Your task to perform on an android device: Show the shopping cart on ebay.com. Add "jbl charge 4" to the cart on ebay.com, then select checkout. Image 0: 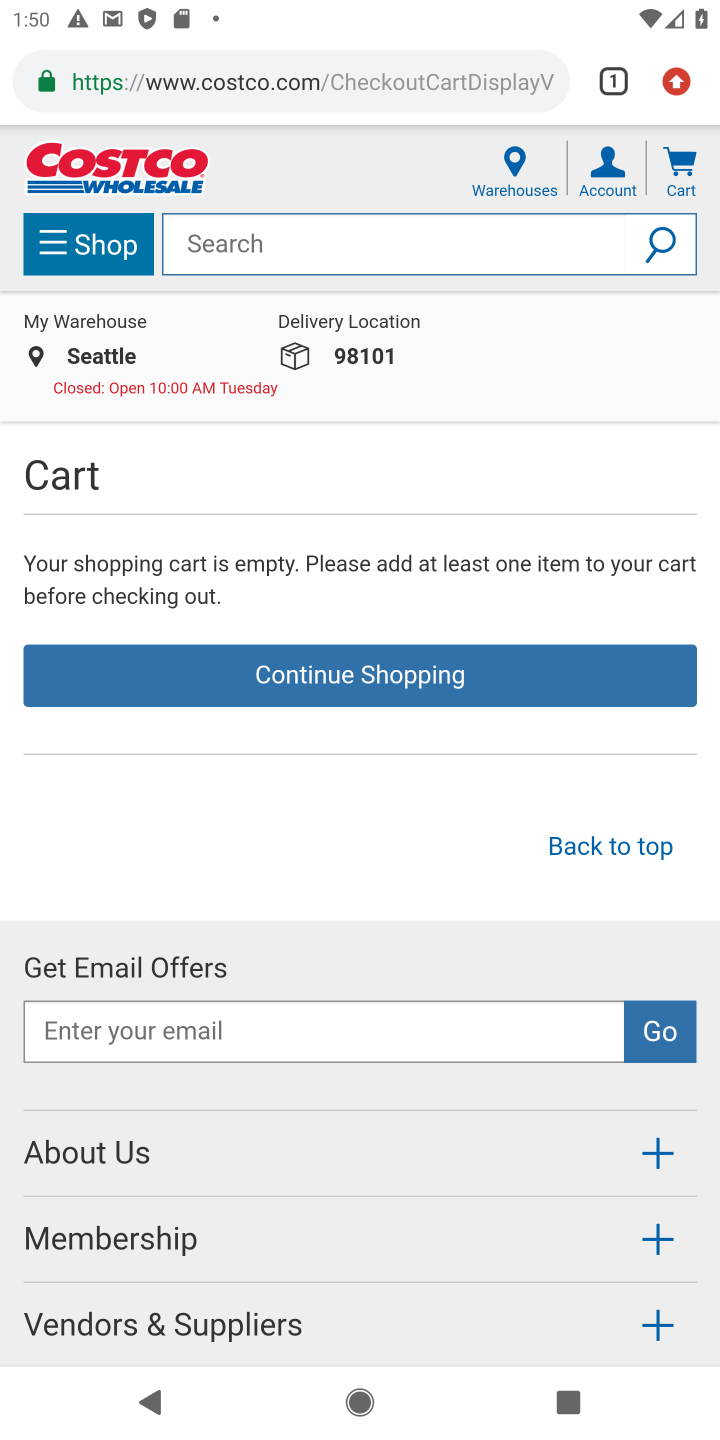
Step 0: click (217, 69)
Your task to perform on an android device: Show the shopping cart on ebay.com. Add "jbl charge 4" to the cart on ebay.com, then select checkout. Image 1: 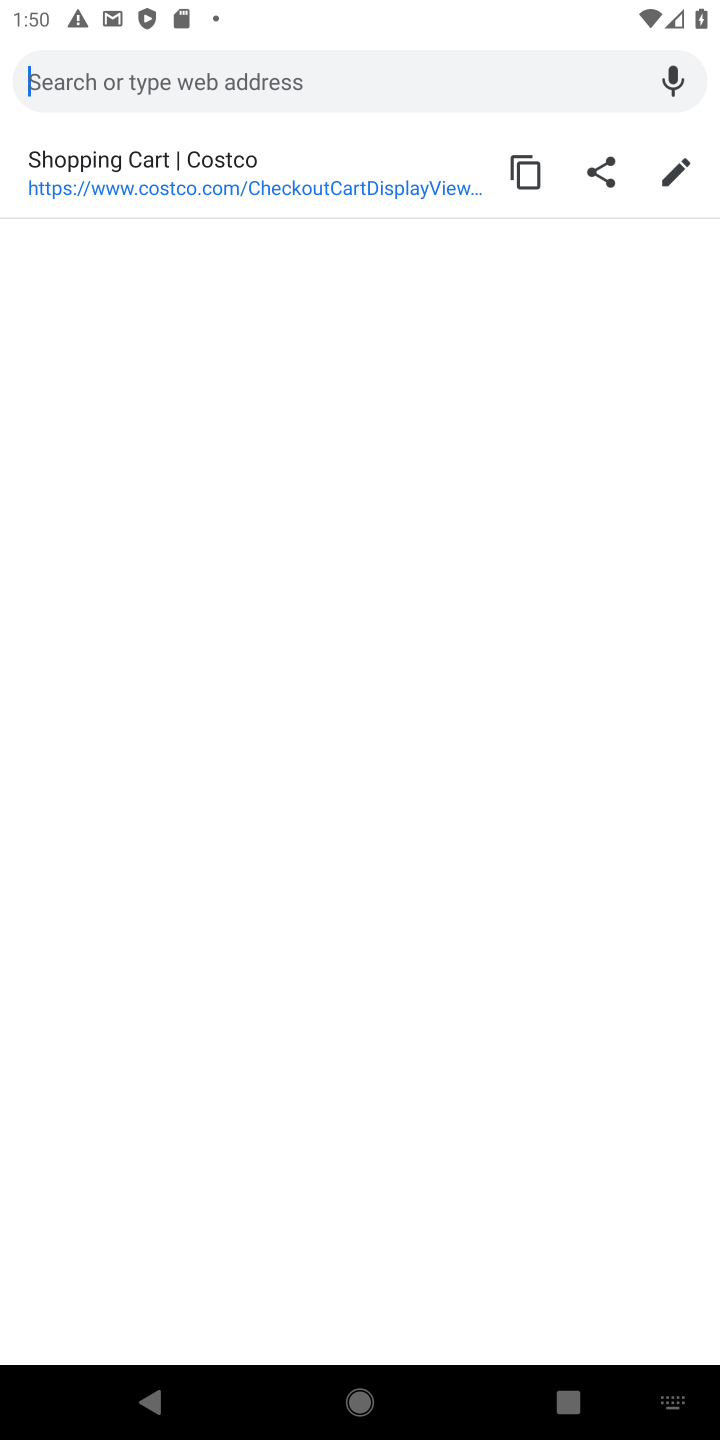
Step 1: type "ebay.com"
Your task to perform on an android device: Show the shopping cart on ebay.com. Add "jbl charge 4" to the cart on ebay.com, then select checkout. Image 2: 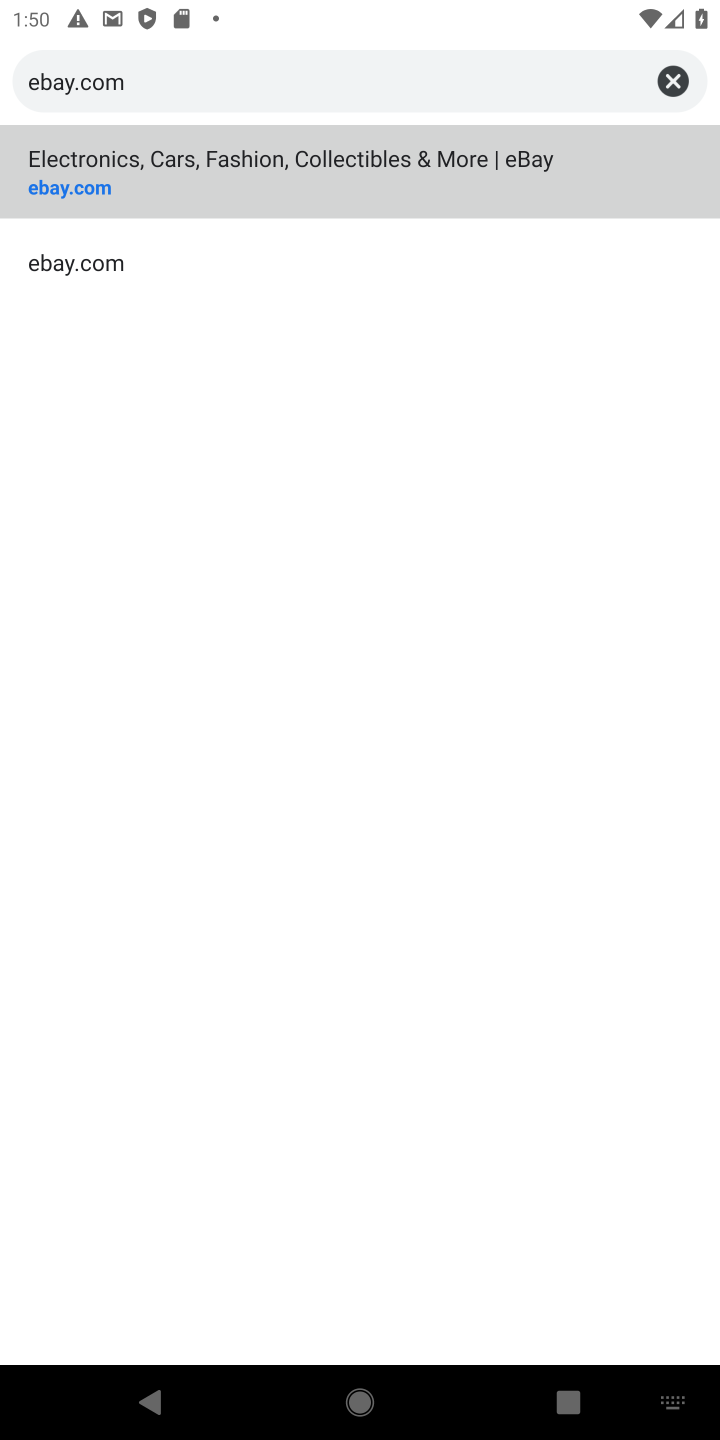
Step 2: click (54, 188)
Your task to perform on an android device: Show the shopping cart on ebay.com. Add "jbl charge 4" to the cart on ebay.com, then select checkout. Image 3: 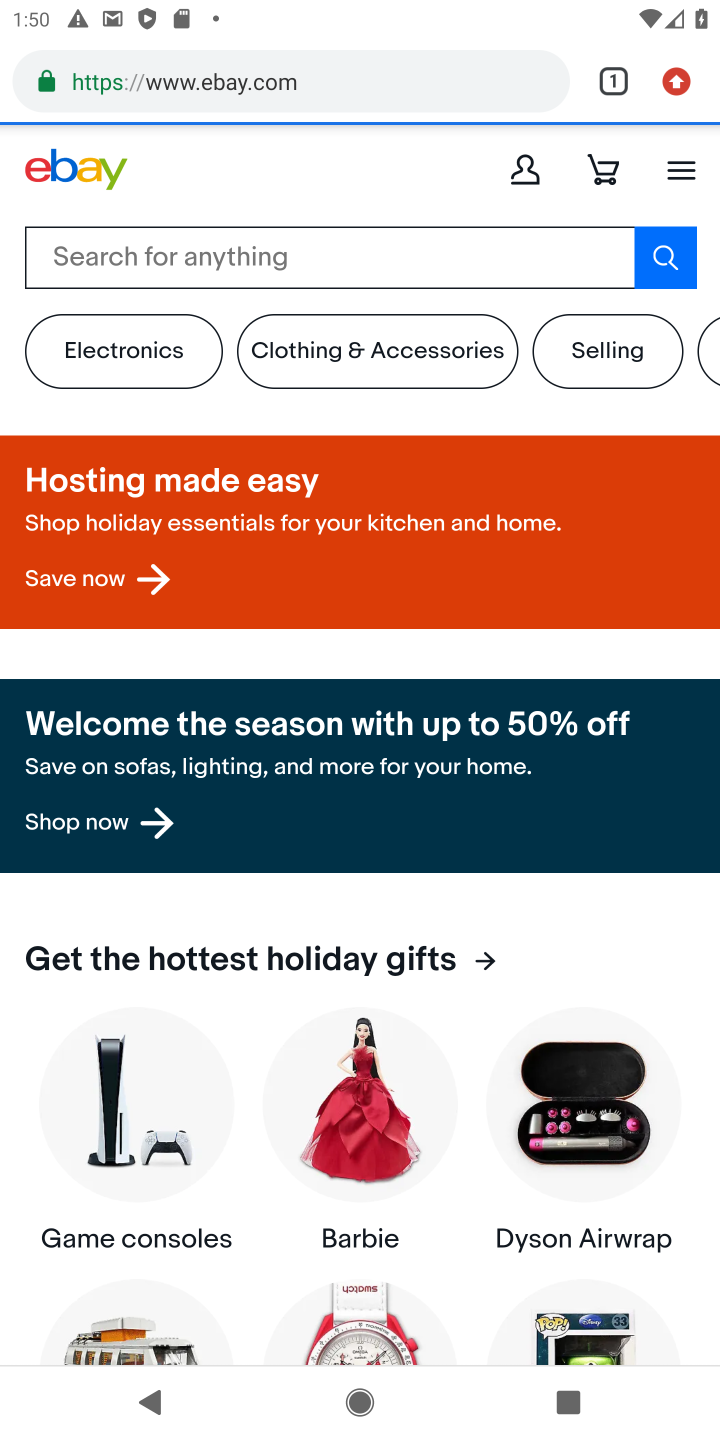
Step 3: click (214, 242)
Your task to perform on an android device: Show the shopping cart on ebay.com. Add "jbl charge 4" to the cart on ebay.com, then select checkout. Image 4: 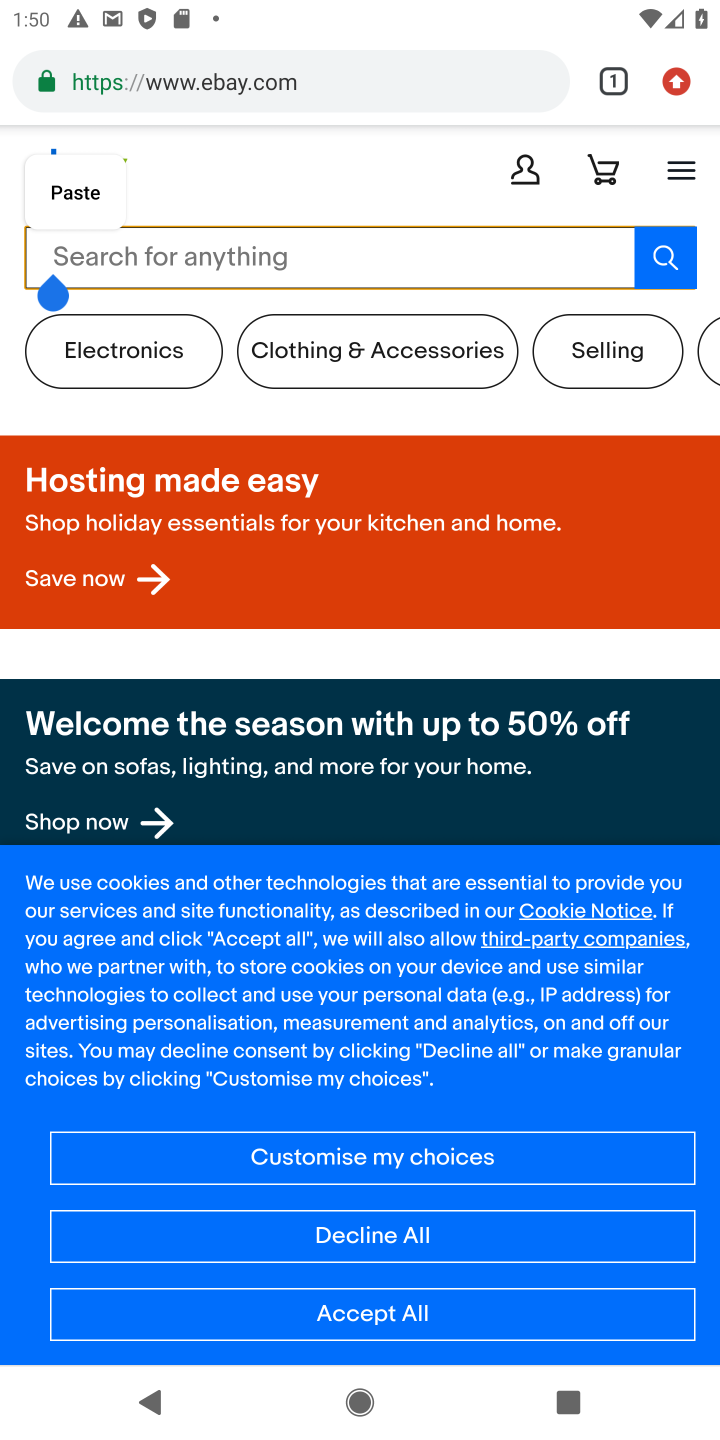
Step 4: type "jbl charge 4"
Your task to perform on an android device: Show the shopping cart on ebay.com. Add "jbl charge 4" to the cart on ebay.com, then select checkout. Image 5: 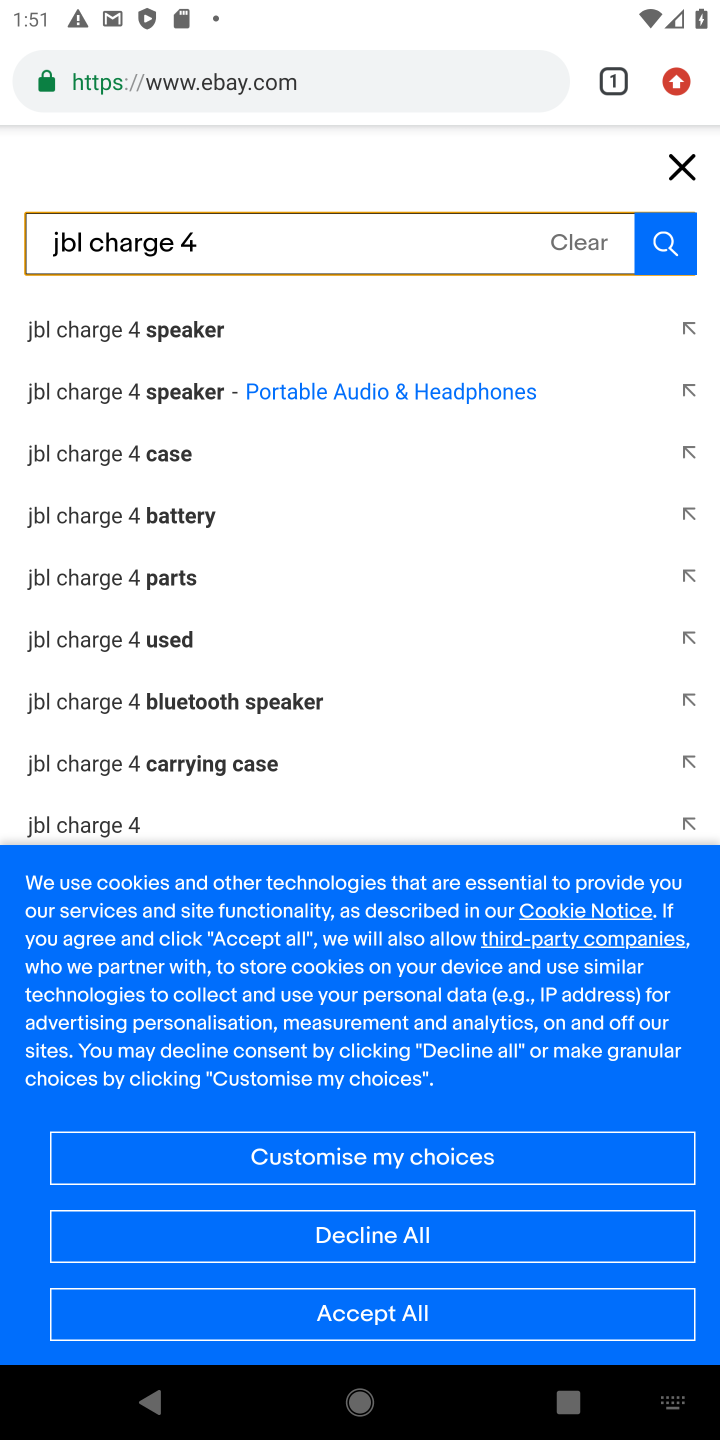
Step 5: click (103, 819)
Your task to perform on an android device: Show the shopping cart on ebay.com. Add "jbl charge 4" to the cart on ebay.com, then select checkout. Image 6: 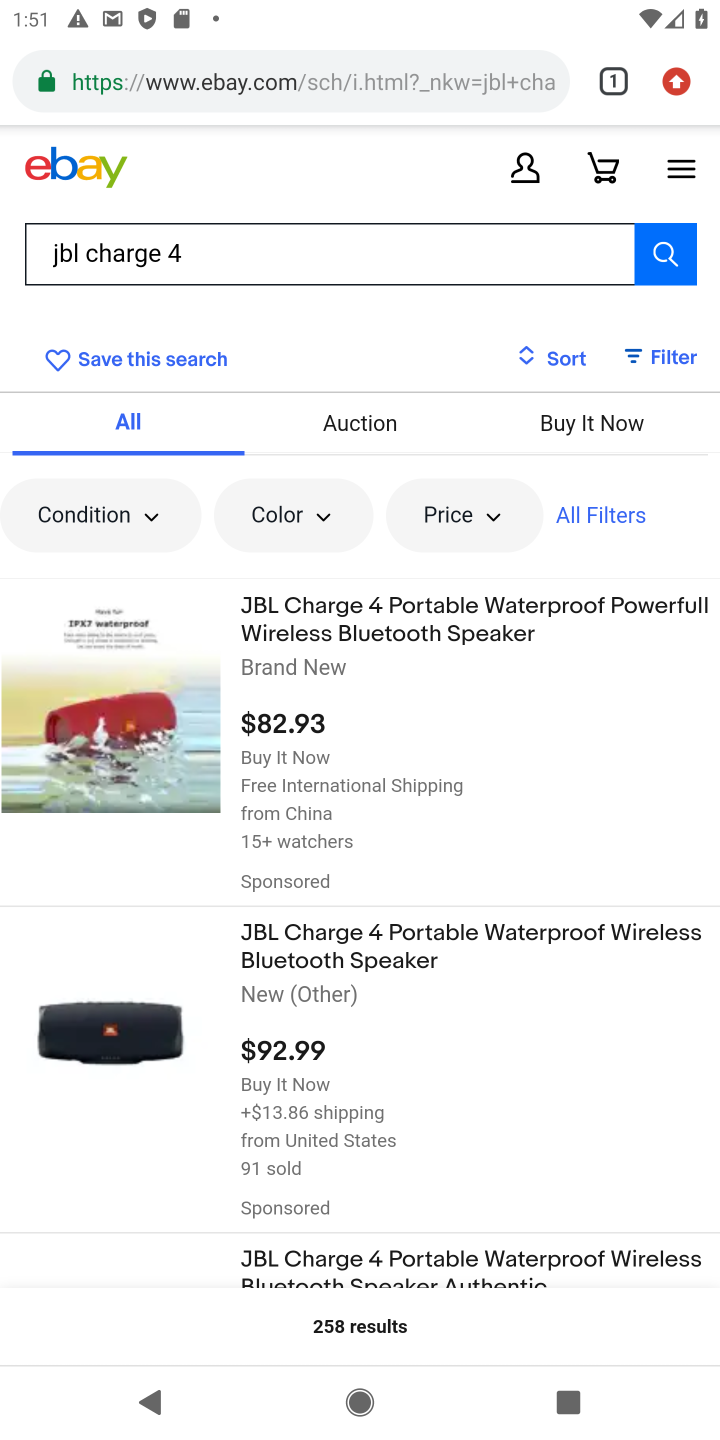
Step 6: click (159, 689)
Your task to perform on an android device: Show the shopping cart on ebay.com. Add "jbl charge 4" to the cart on ebay.com, then select checkout. Image 7: 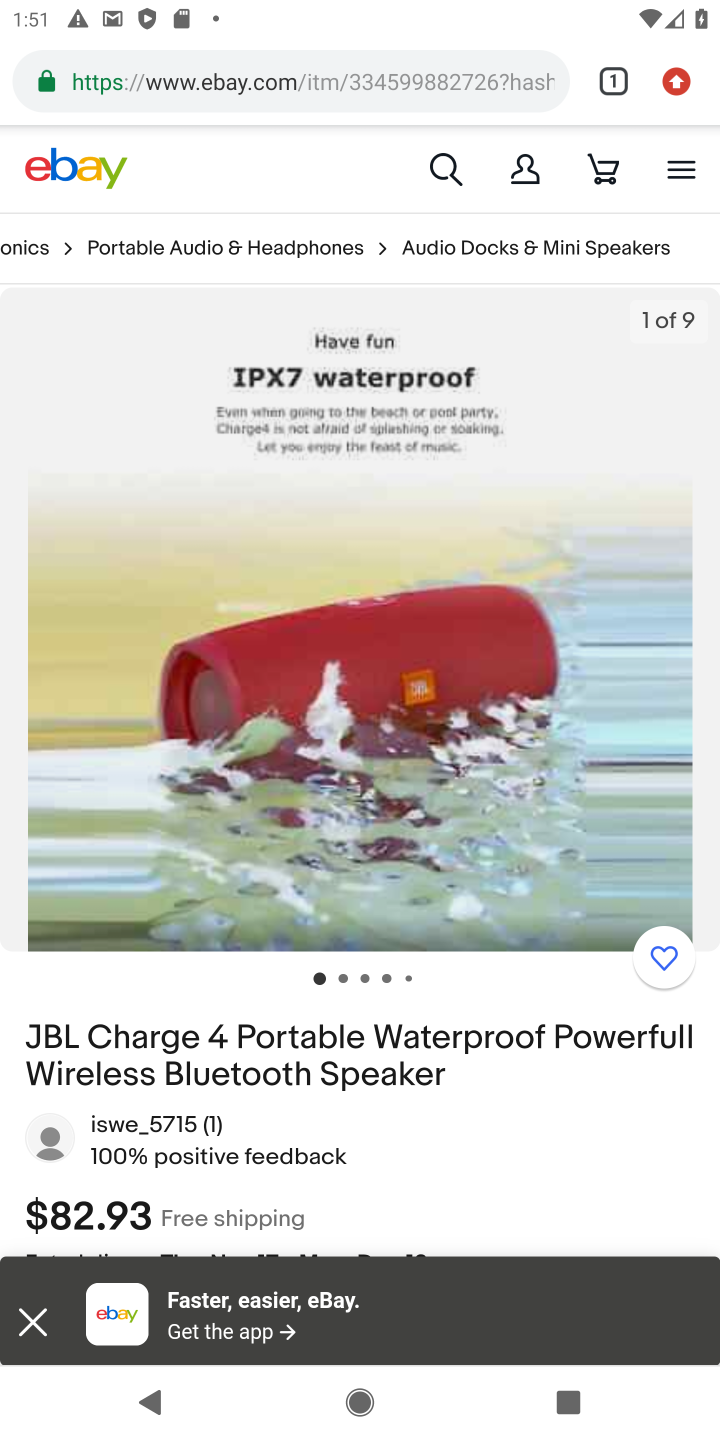
Step 7: drag from (407, 943) to (367, 483)
Your task to perform on an android device: Show the shopping cart on ebay.com. Add "jbl charge 4" to the cart on ebay.com, then select checkout. Image 8: 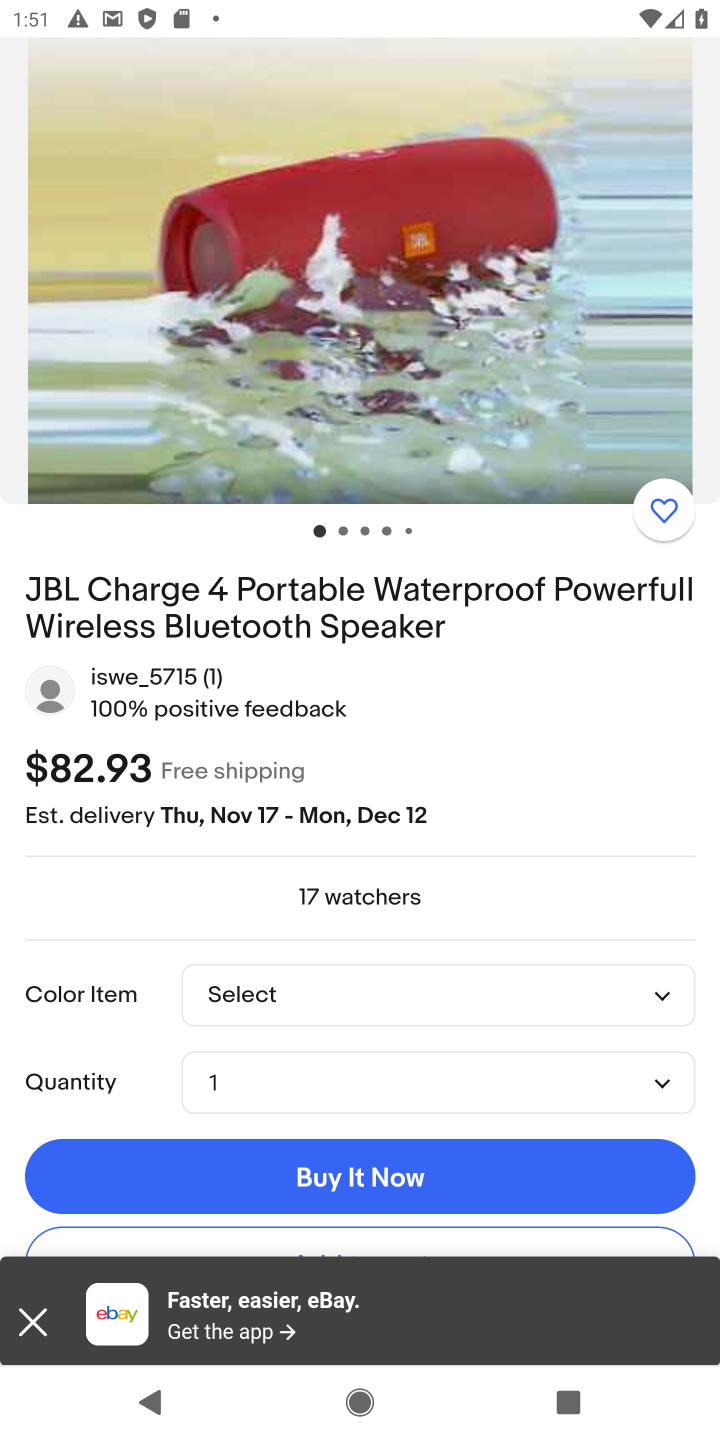
Step 8: drag from (331, 1082) to (391, 521)
Your task to perform on an android device: Show the shopping cart on ebay.com. Add "jbl charge 4" to the cart on ebay.com, then select checkout. Image 9: 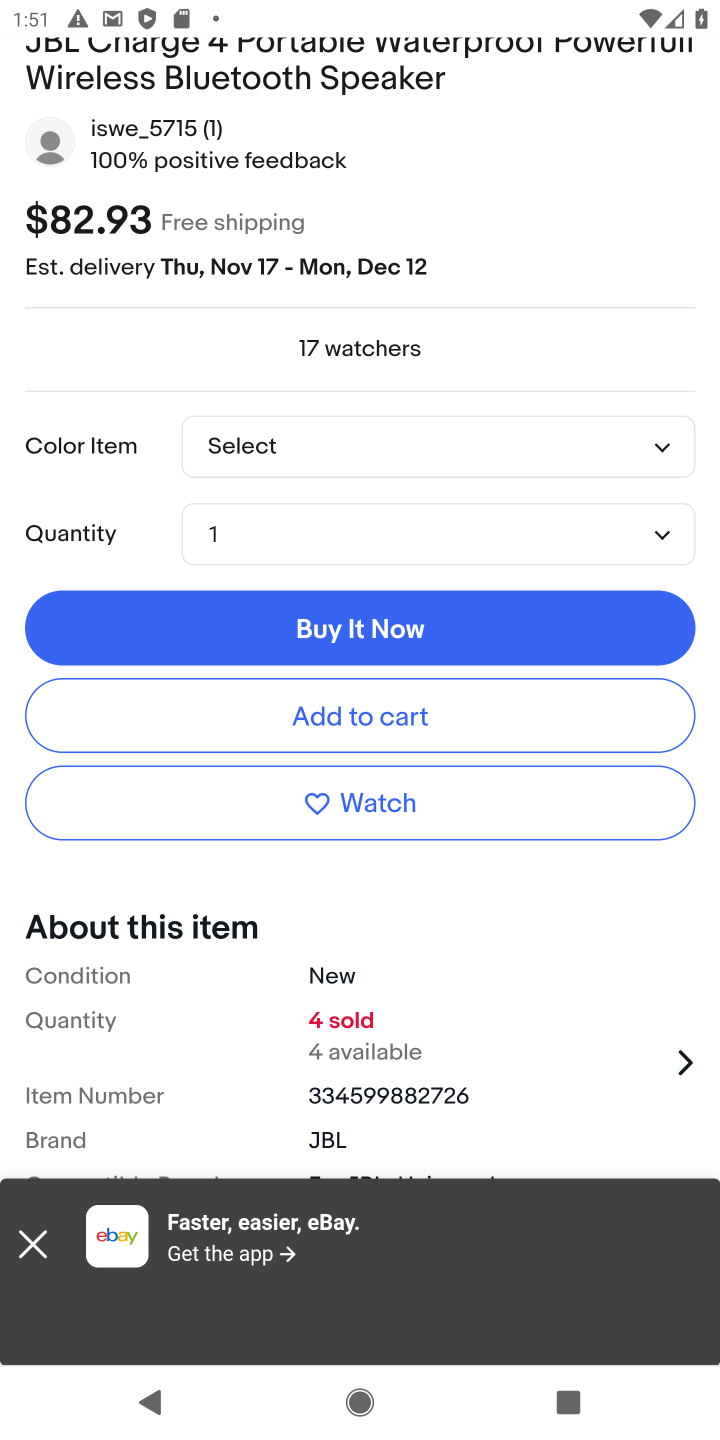
Step 9: click (420, 707)
Your task to perform on an android device: Show the shopping cart on ebay.com. Add "jbl charge 4" to the cart on ebay.com, then select checkout. Image 10: 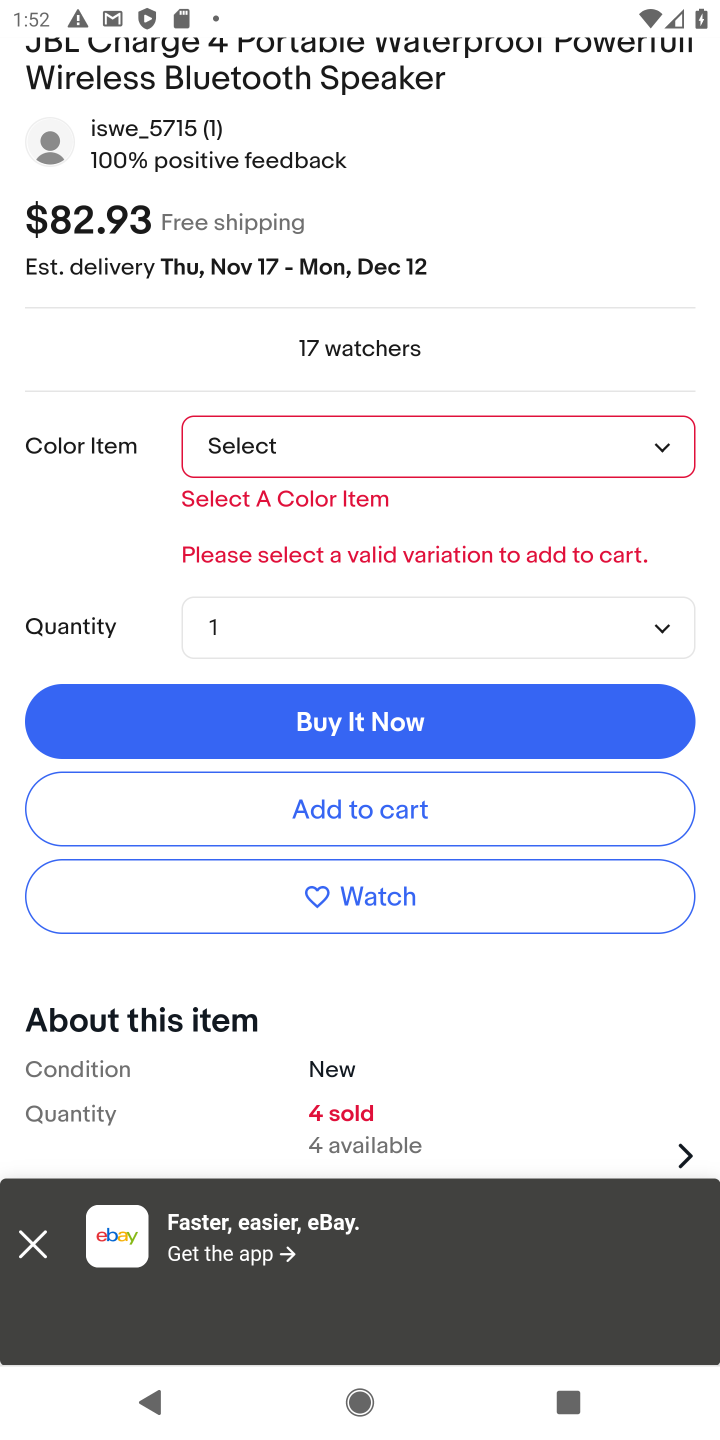
Step 10: click (348, 813)
Your task to perform on an android device: Show the shopping cart on ebay.com. Add "jbl charge 4" to the cart on ebay.com, then select checkout. Image 11: 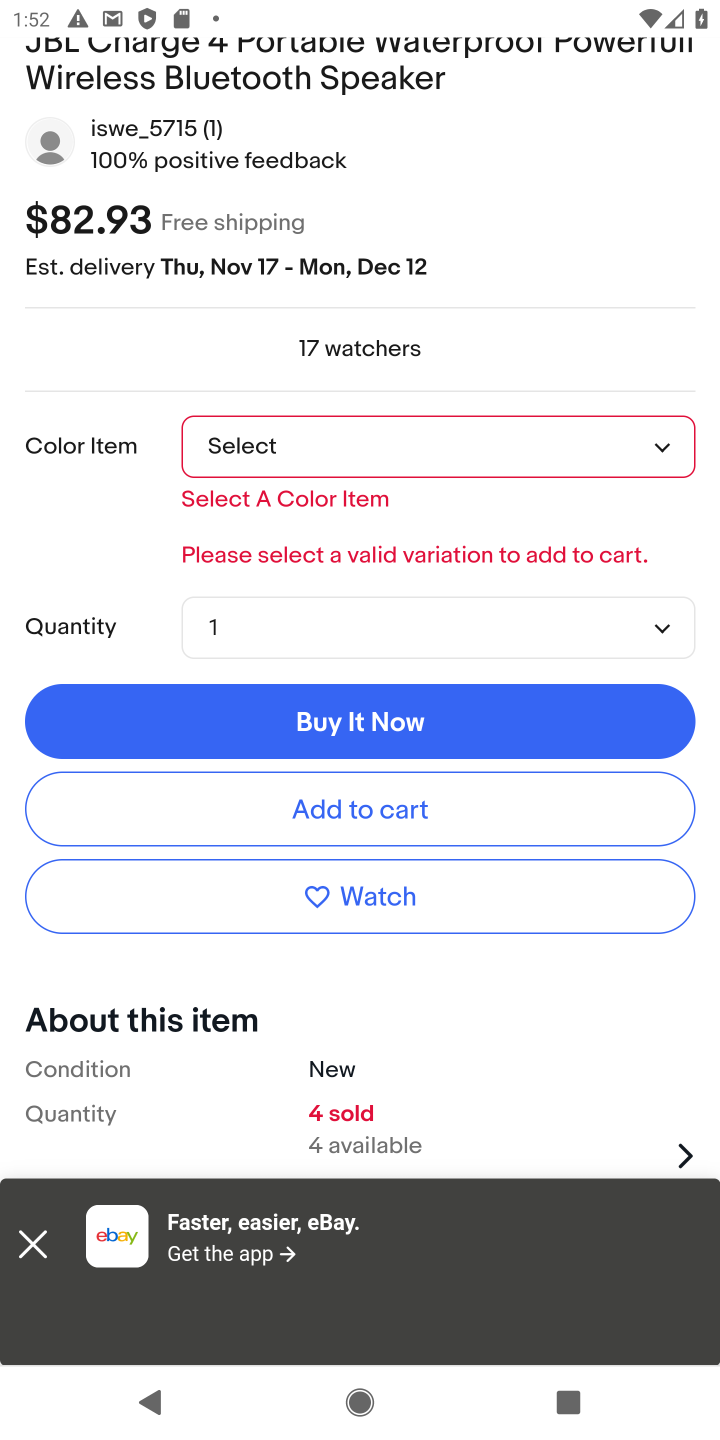
Step 11: click (382, 800)
Your task to perform on an android device: Show the shopping cart on ebay.com. Add "jbl charge 4" to the cart on ebay.com, then select checkout. Image 12: 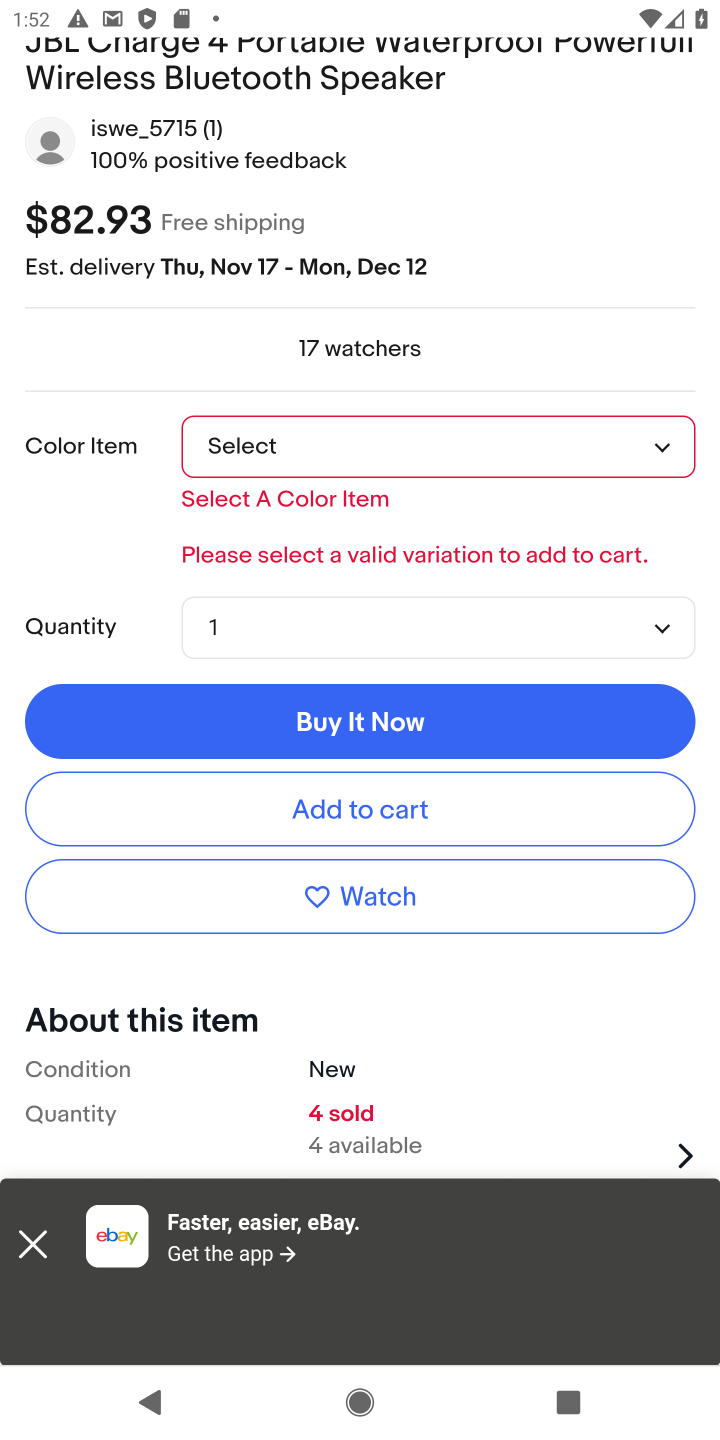
Step 12: click (406, 802)
Your task to perform on an android device: Show the shopping cart on ebay.com. Add "jbl charge 4" to the cart on ebay.com, then select checkout. Image 13: 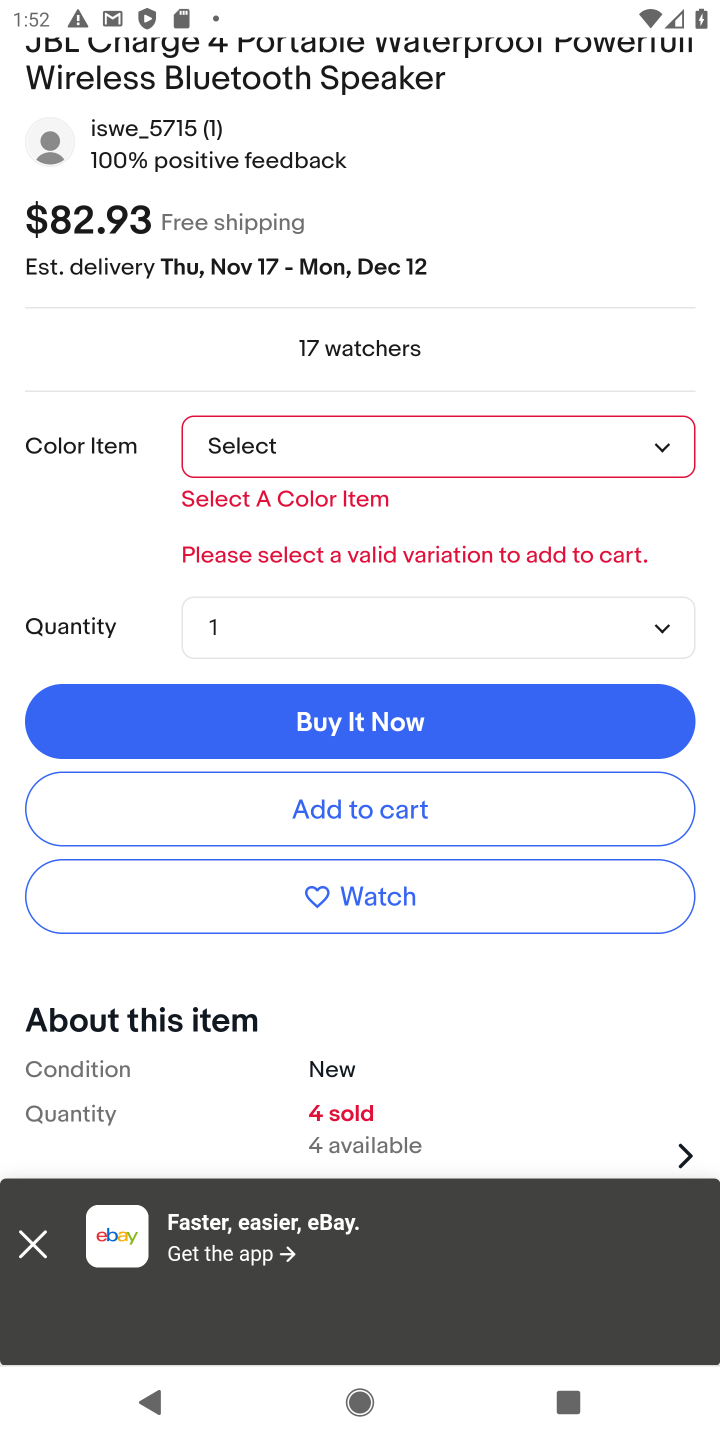
Step 13: click (409, 793)
Your task to perform on an android device: Show the shopping cart on ebay.com. Add "jbl charge 4" to the cart on ebay.com, then select checkout. Image 14: 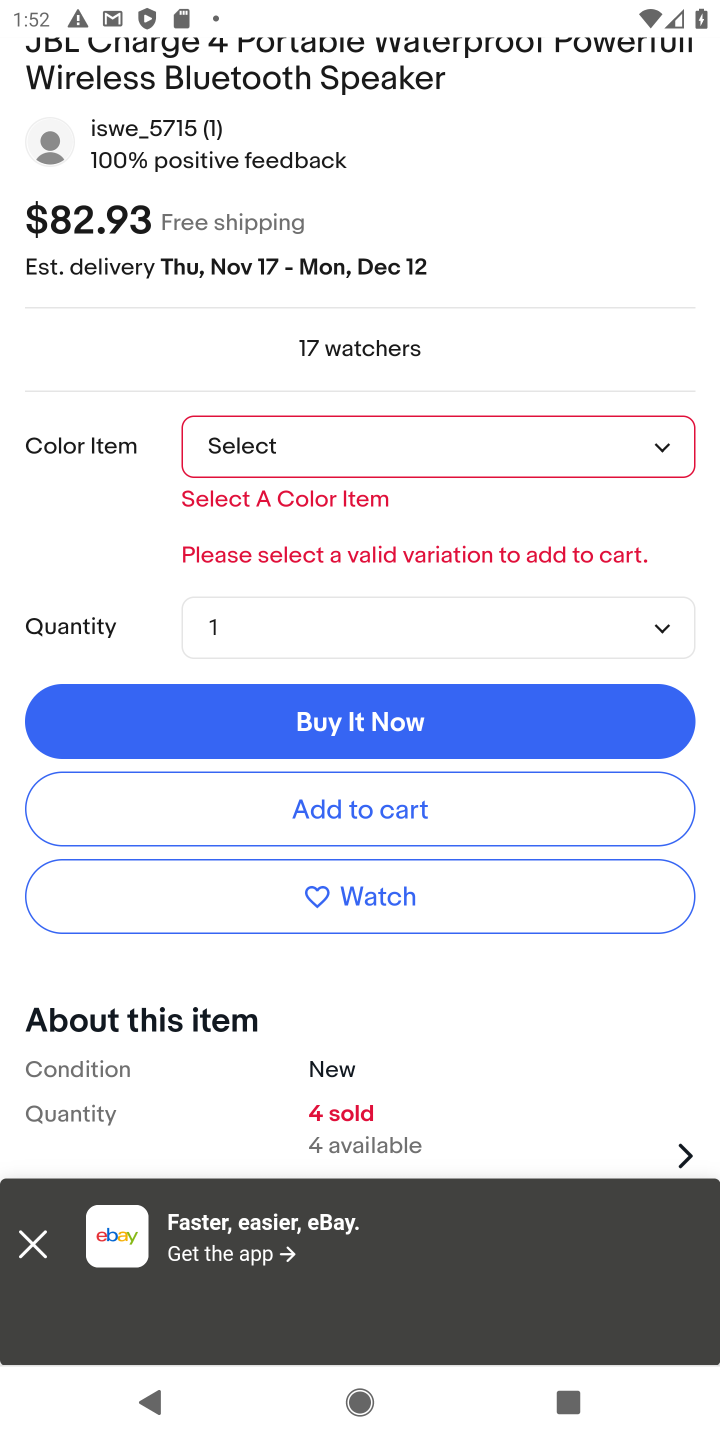
Step 14: click (398, 819)
Your task to perform on an android device: Show the shopping cart on ebay.com. Add "jbl charge 4" to the cart on ebay.com, then select checkout. Image 15: 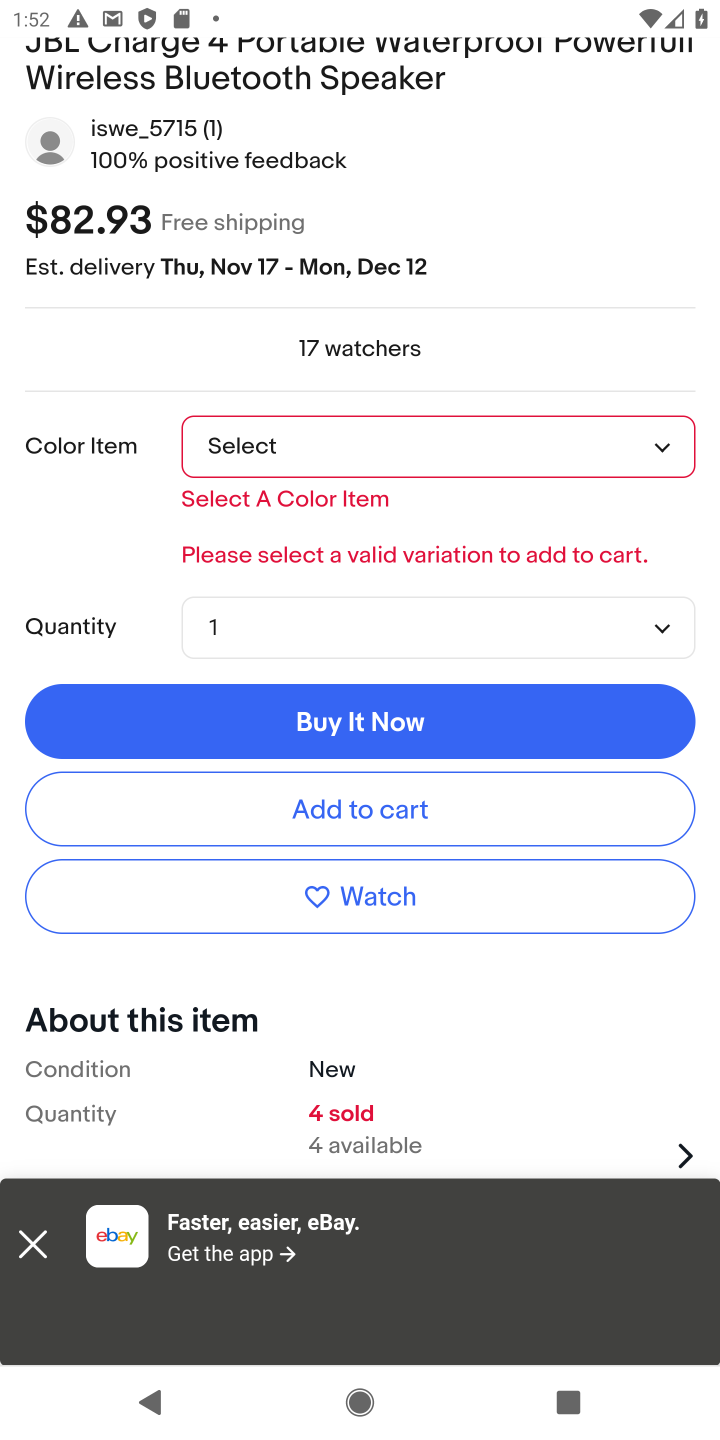
Step 15: click (398, 819)
Your task to perform on an android device: Show the shopping cart on ebay.com. Add "jbl charge 4" to the cart on ebay.com, then select checkout. Image 16: 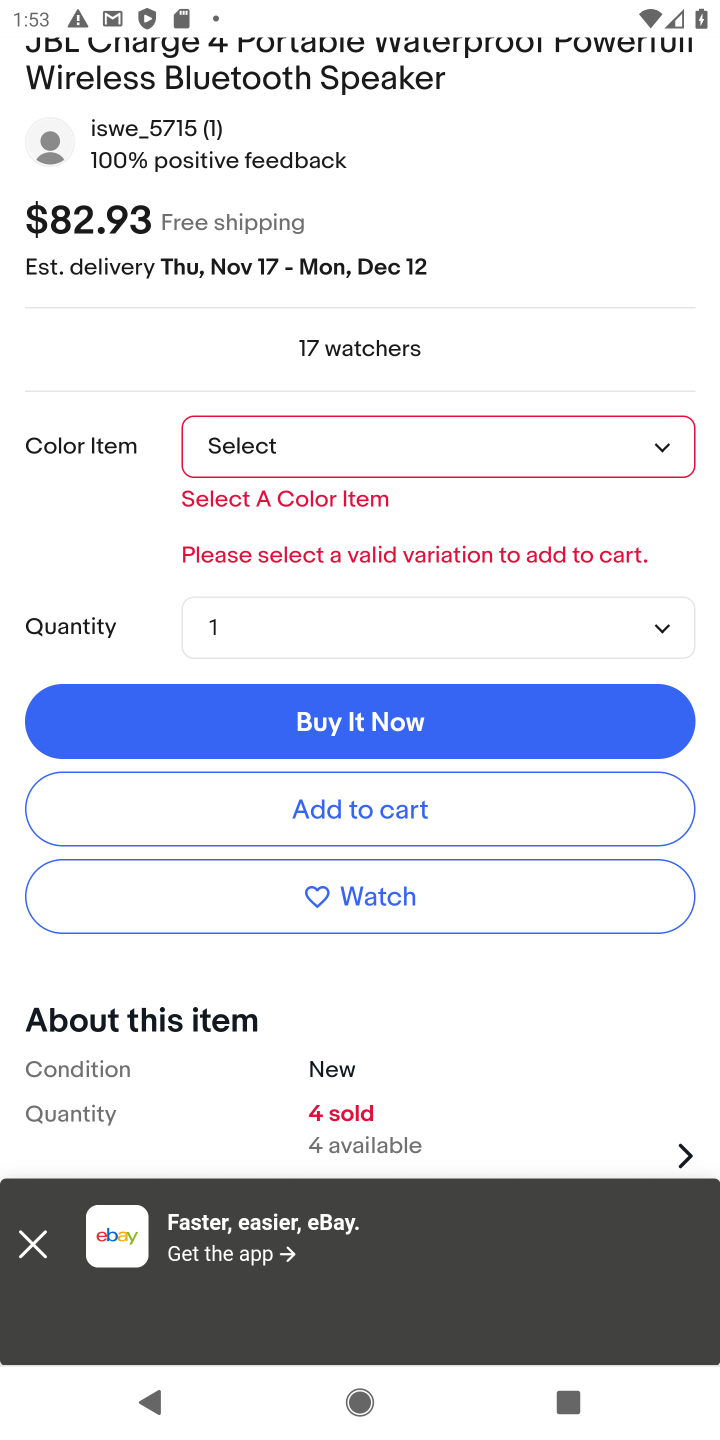
Step 16: click (314, 812)
Your task to perform on an android device: Show the shopping cart on ebay.com. Add "jbl charge 4" to the cart on ebay.com, then select checkout. Image 17: 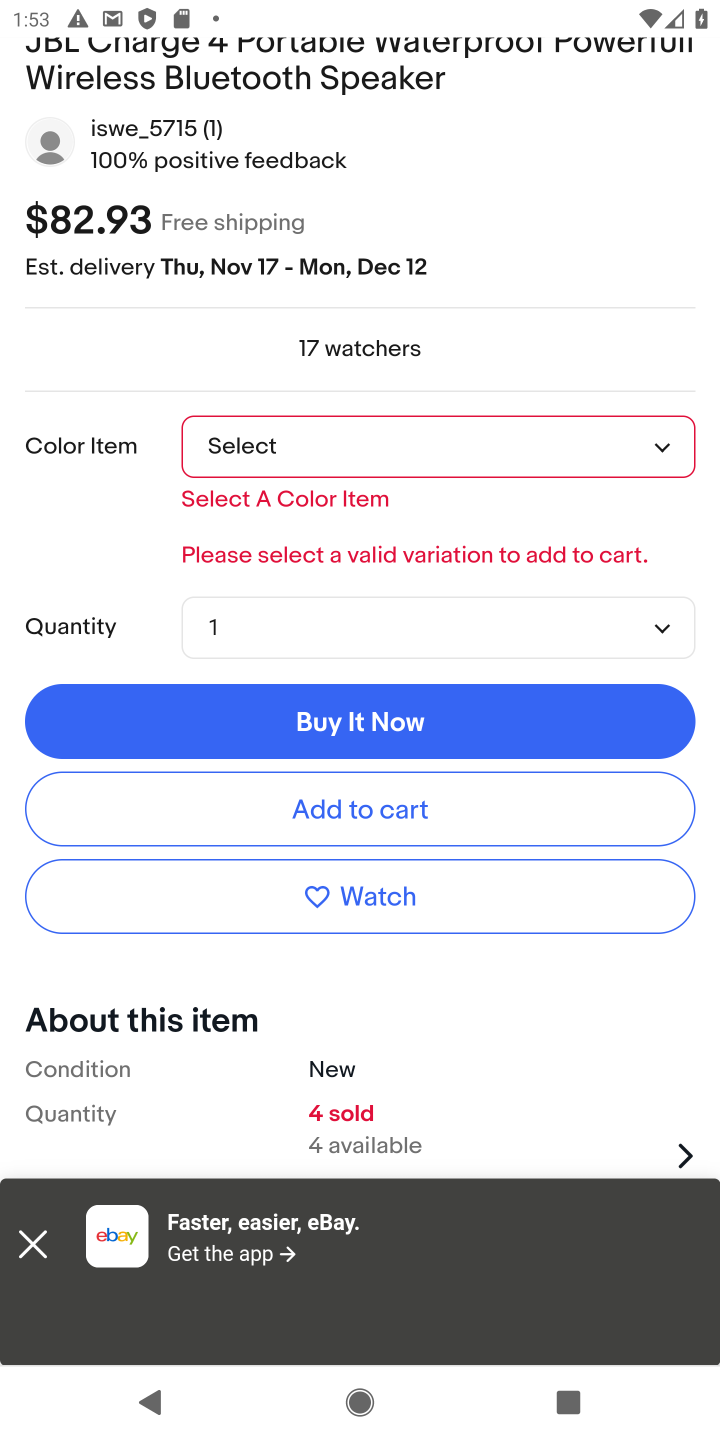
Step 17: click (314, 812)
Your task to perform on an android device: Show the shopping cart on ebay.com. Add "jbl charge 4" to the cart on ebay.com, then select checkout. Image 18: 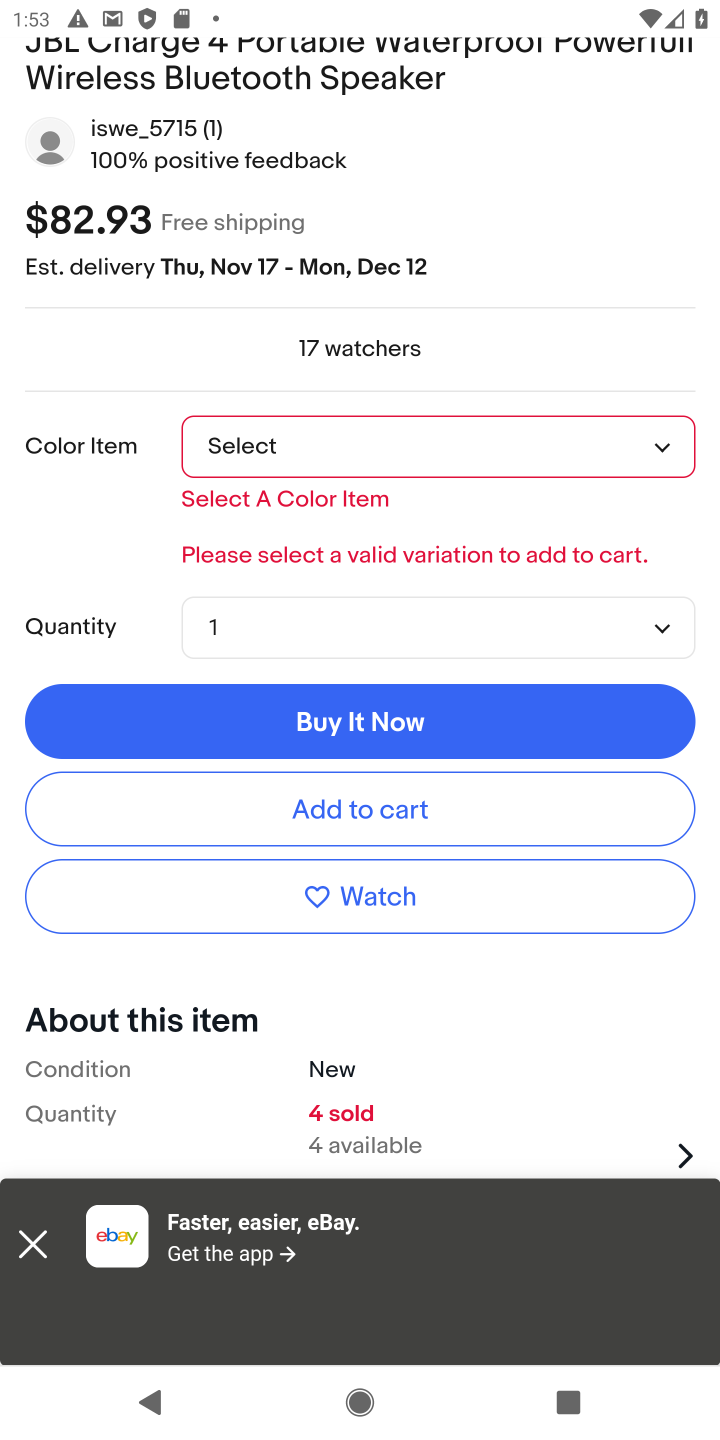
Step 18: click (314, 812)
Your task to perform on an android device: Show the shopping cart on ebay.com. Add "jbl charge 4" to the cart on ebay.com, then select checkout. Image 19: 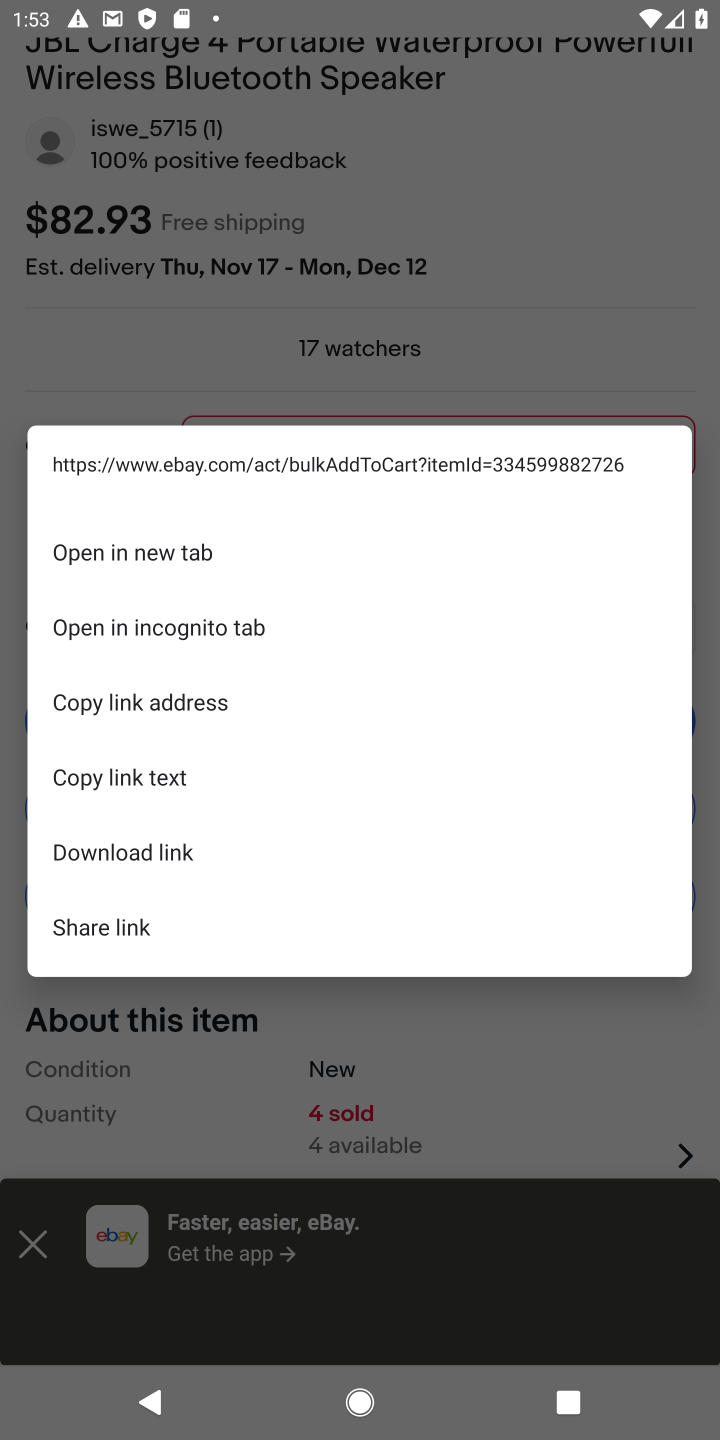
Step 19: click (624, 275)
Your task to perform on an android device: Show the shopping cart on ebay.com. Add "jbl charge 4" to the cart on ebay.com, then select checkout. Image 20: 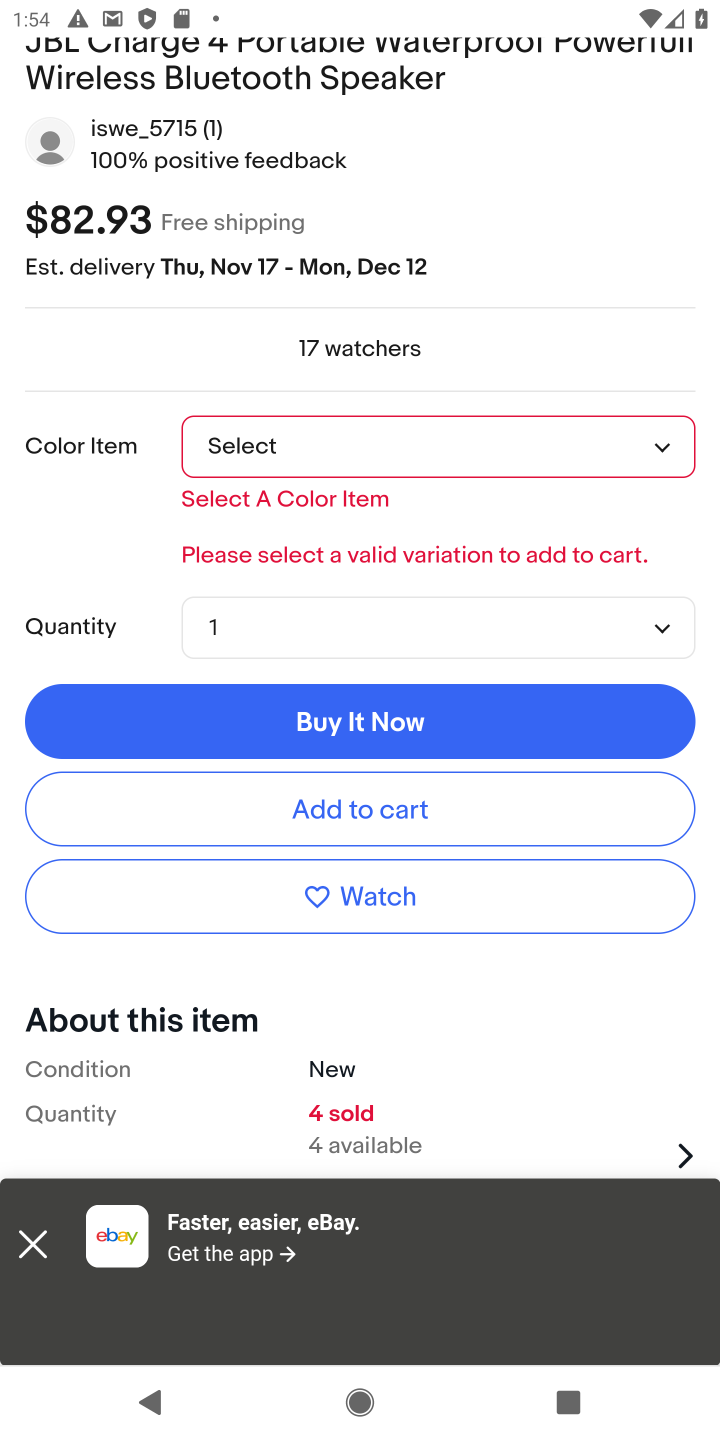
Step 20: click (326, 812)
Your task to perform on an android device: Show the shopping cart on ebay.com. Add "jbl charge 4" to the cart on ebay.com, then select checkout. Image 21: 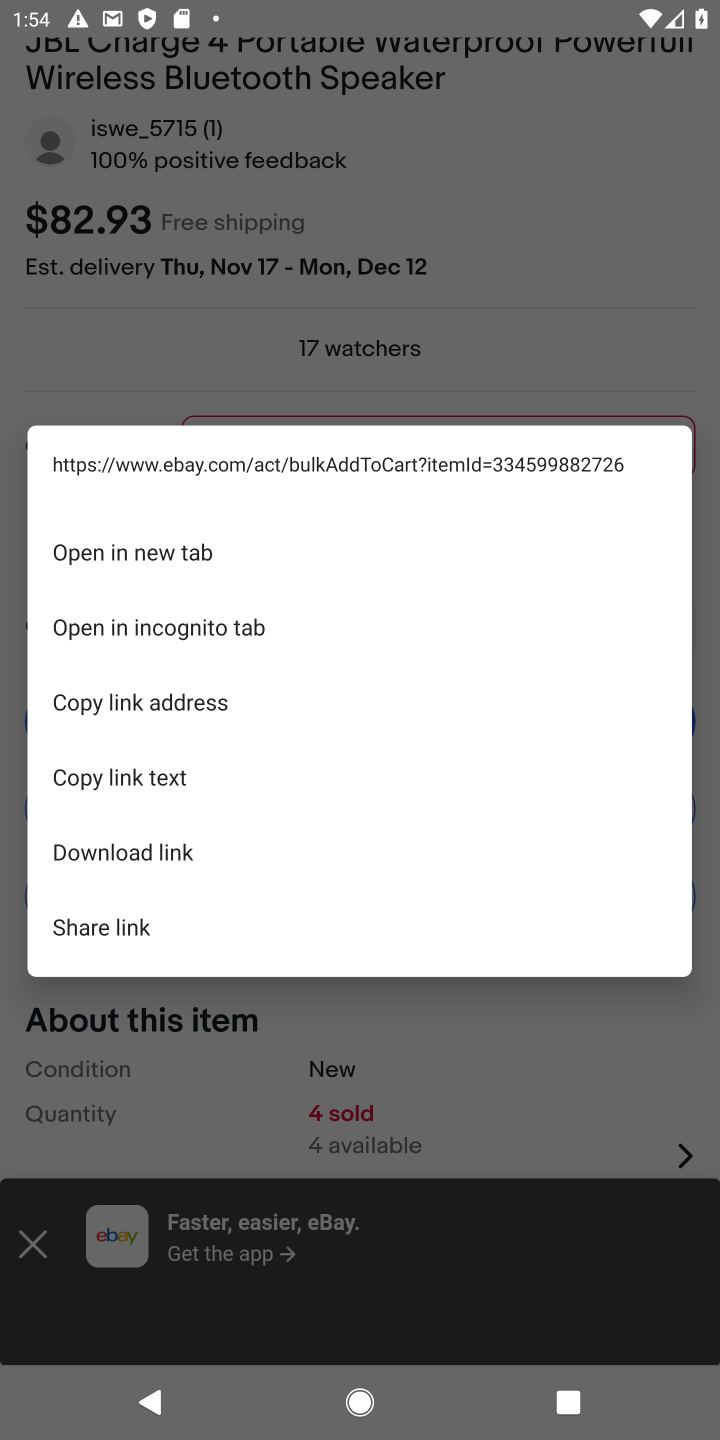
Step 21: click (328, 812)
Your task to perform on an android device: Show the shopping cart on ebay.com. Add "jbl charge 4" to the cart on ebay.com, then select checkout. Image 22: 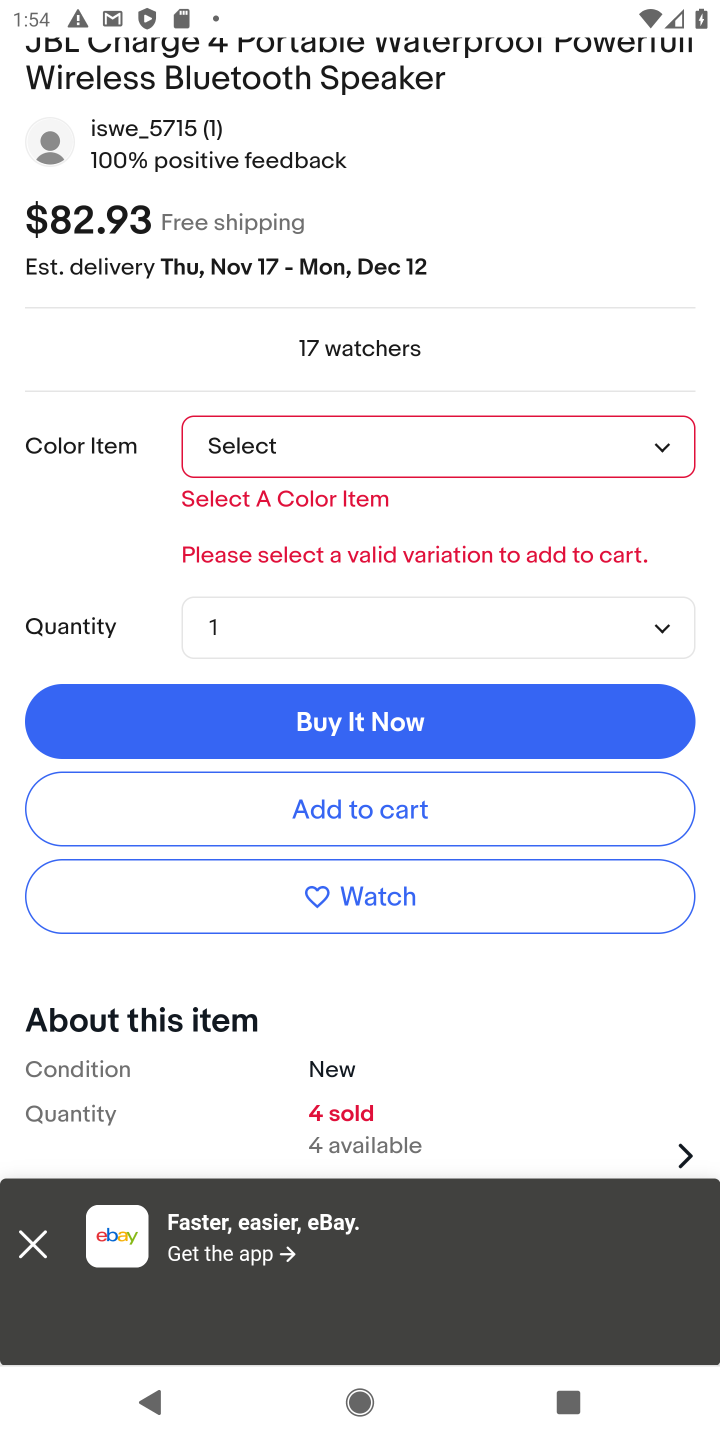
Step 22: click (335, 810)
Your task to perform on an android device: Show the shopping cart on ebay.com. Add "jbl charge 4" to the cart on ebay.com, then select checkout. Image 23: 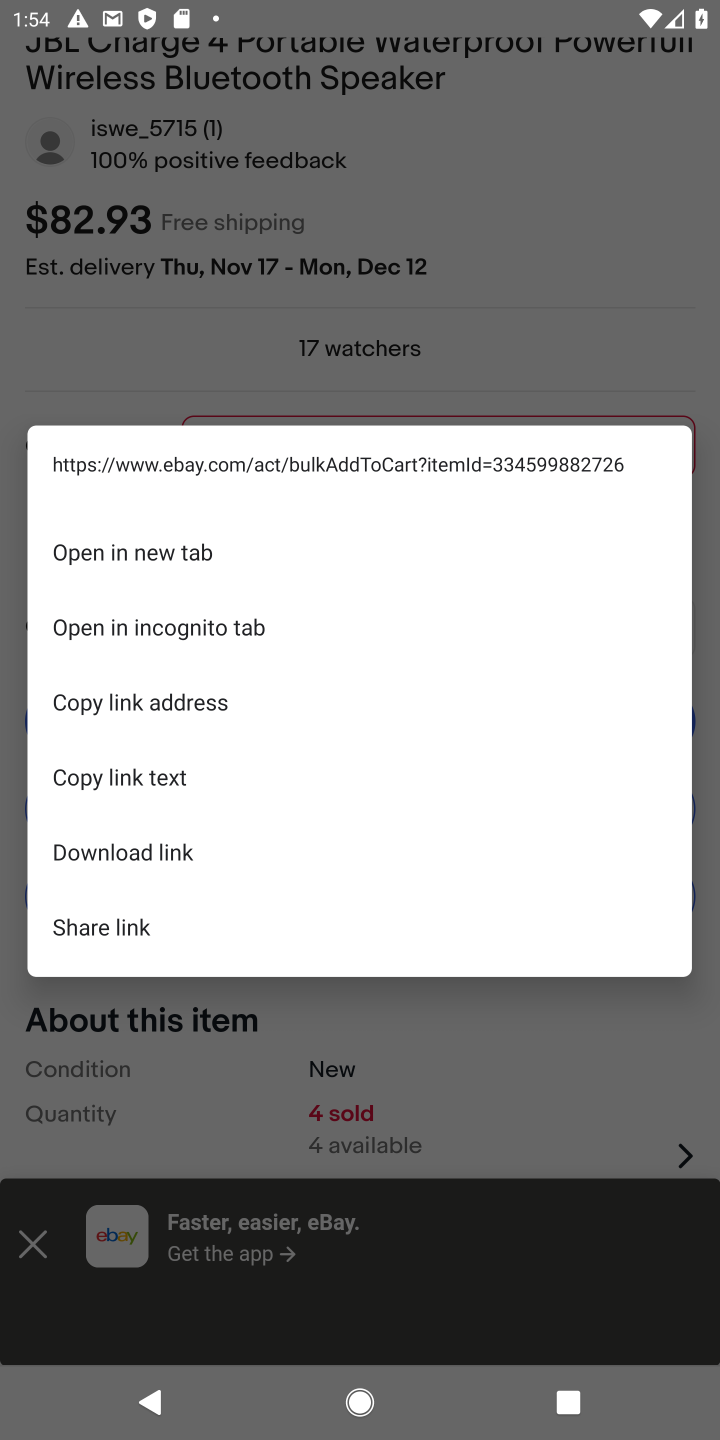
Step 23: task complete